Your task to perform on an android device: delete a single message in the gmail app Image 0: 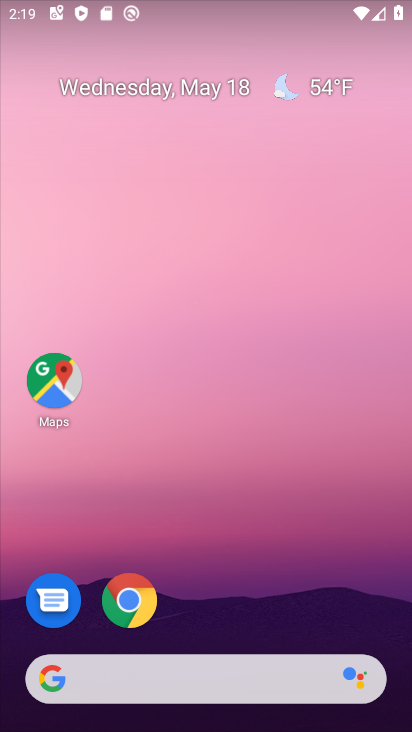
Step 0: drag from (168, 614) to (378, 715)
Your task to perform on an android device: delete a single message in the gmail app Image 1: 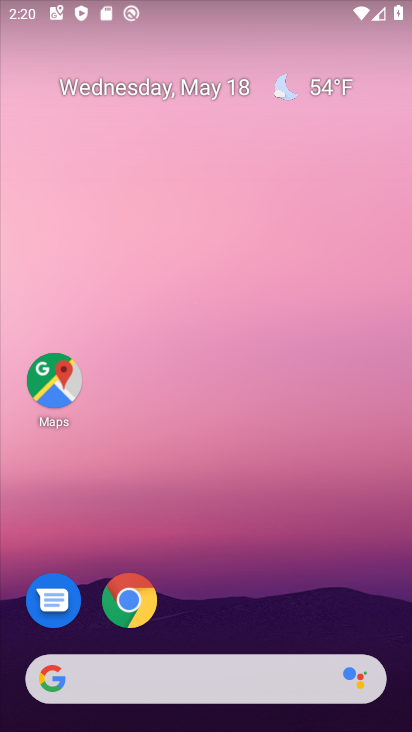
Step 1: drag from (259, 615) to (257, 83)
Your task to perform on an android device: delete a single message in the gmail app Image 2: 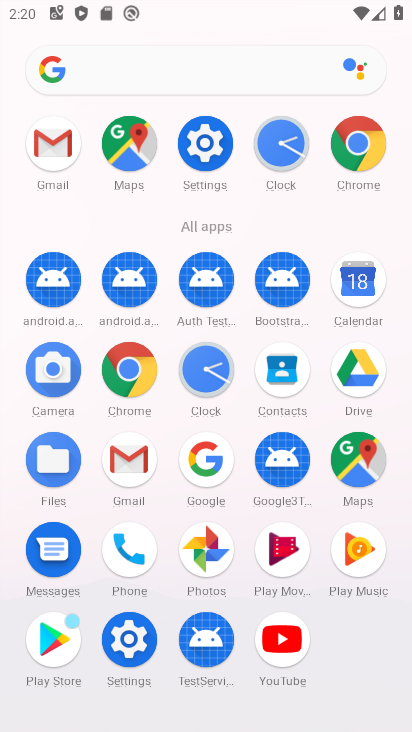
Step 2: click (42, 163)
Your task to perform on an android device: delete a single message in the gmail app Image 3: 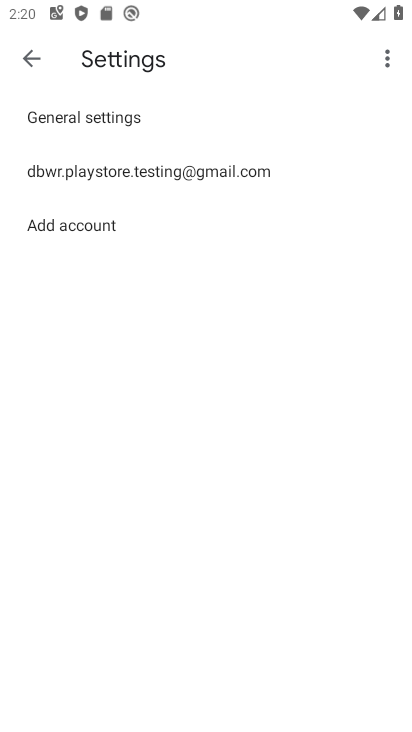
Step 3: click (112, 166)
Your task to perform on an android device: delete a single message in the gmail app Image 4: 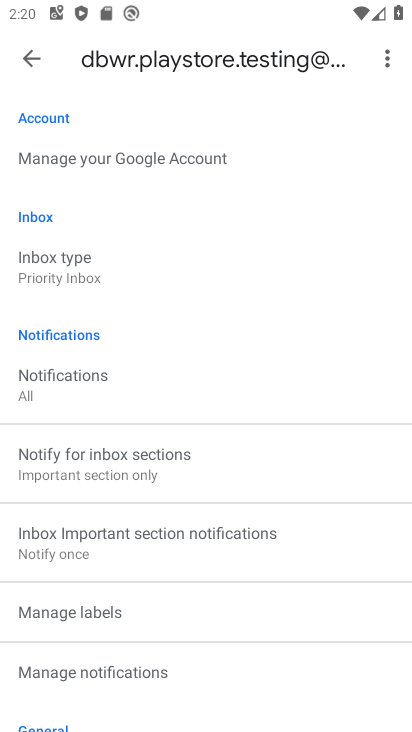
Step 4: click (32, 74)
Your task to perform on an android device: delete a single message in the gmail app Image 5: 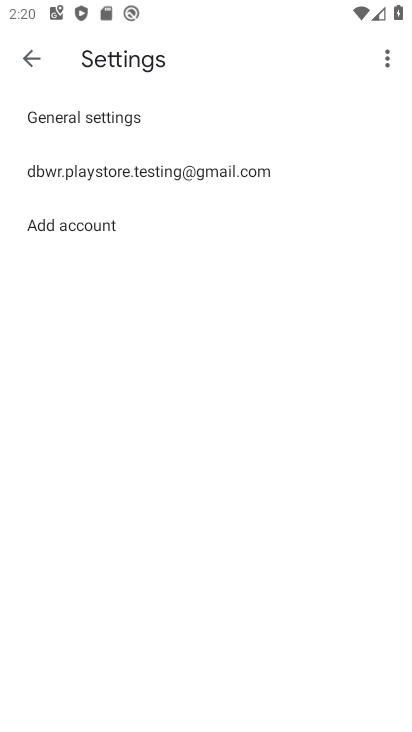
Step 5: click (283, 181)
Your task to perform on an android device: delete a single message in the gmail app Image 6: 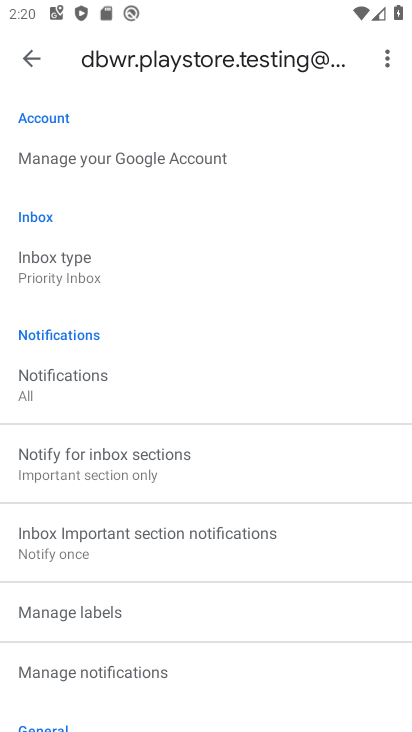
Step 6: click (44, 66)
Your task to perform on an android device: delete a single message in the gmail app Image 7: 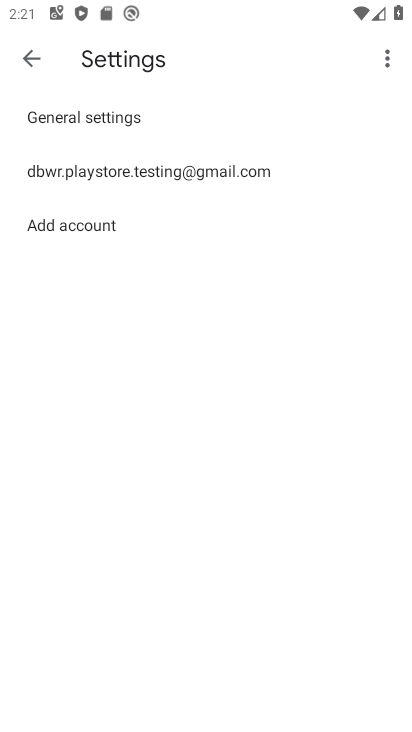
Step 7: click (45, 68)
Your task to perform on an android device: delete a single message in the gmail app Image 8: 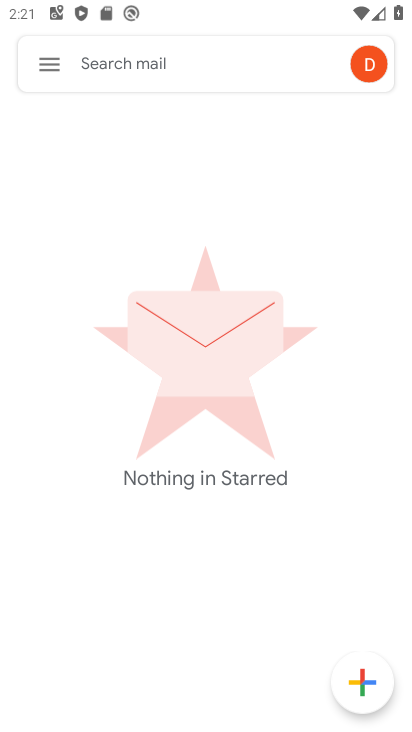
Step 8: click (42, 50)
Your task to perform on an android device: delete a single message in the gmail app Image 9: 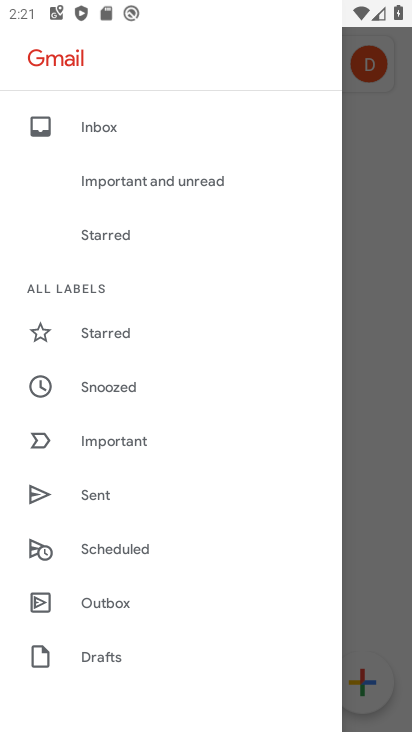
Step 9: click (138, 134)
Your task to perform on an android device: delete a single message in the gmail app Image 10: 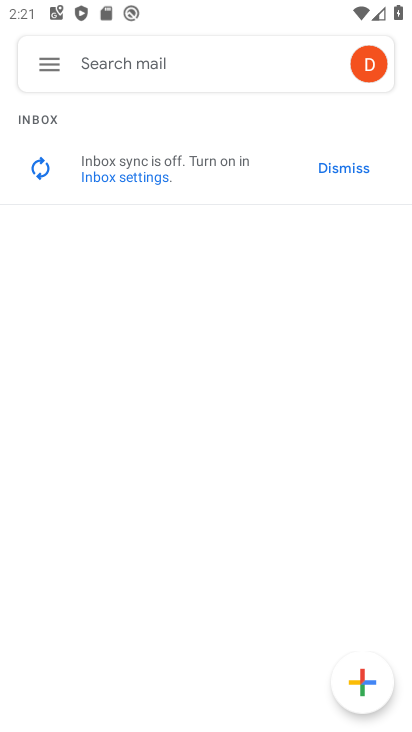
Step 10: task complete